Your task to perform on an android device: delete the emails in spam in the gmail app Image 0: 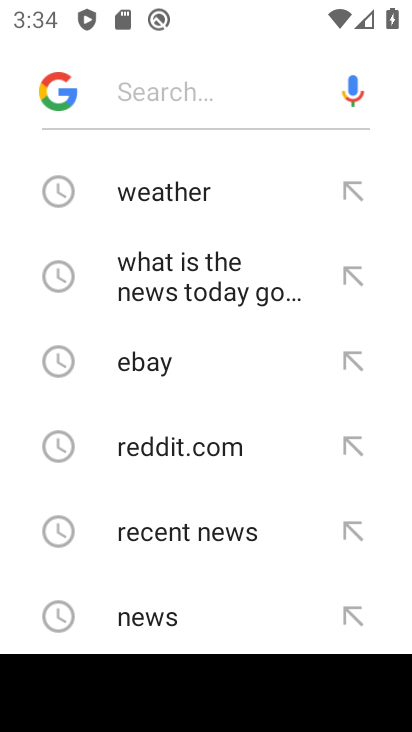
Step 0: press home button
Your task to perform on an android device: delete the emails in spam in the gmail app Image 1: 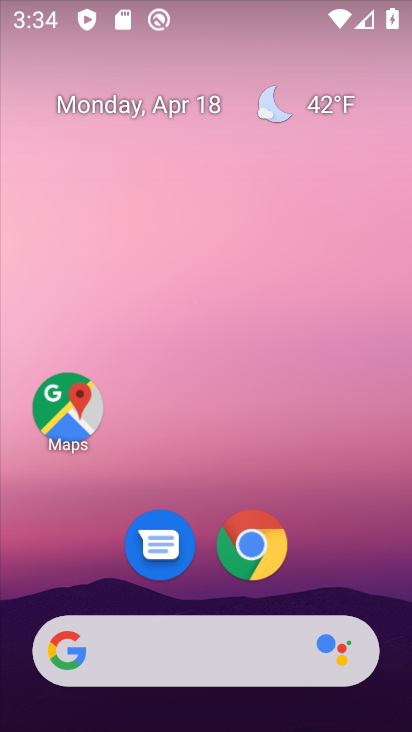
Step 1: drag from (321, 504) to (343, 81)
Your task to perform on an android device: delete the emails in spam in the gmail app Image 2: 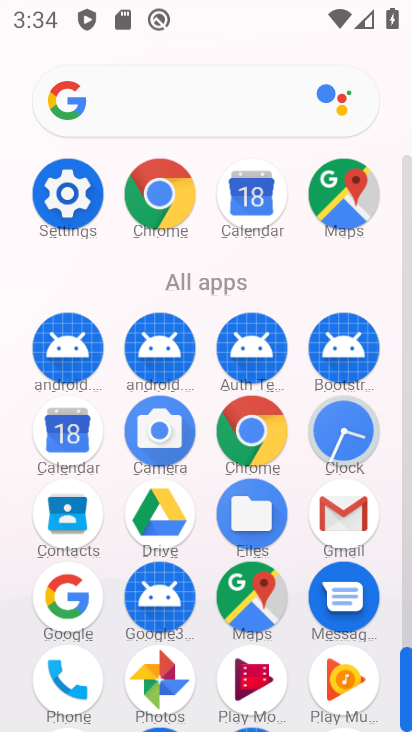
Step 2: click (345, 515)
Your task to perform on an android device: delete the emails in spam in the gmail app Image 3: 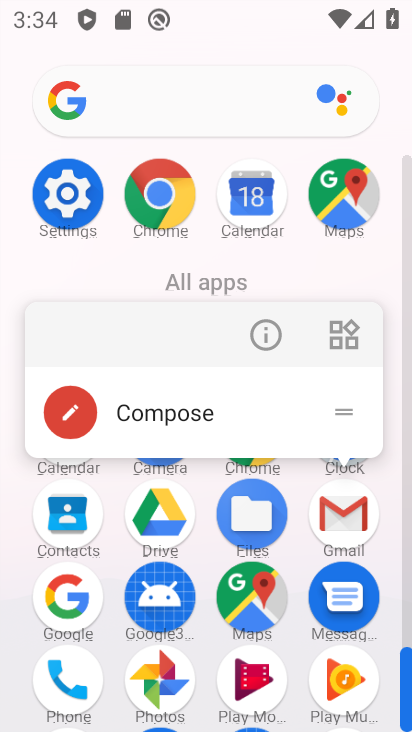
Step 3: click (351, 522)
Your task to perform on an android device: delete the emails in spam in the gmail app Image 4: 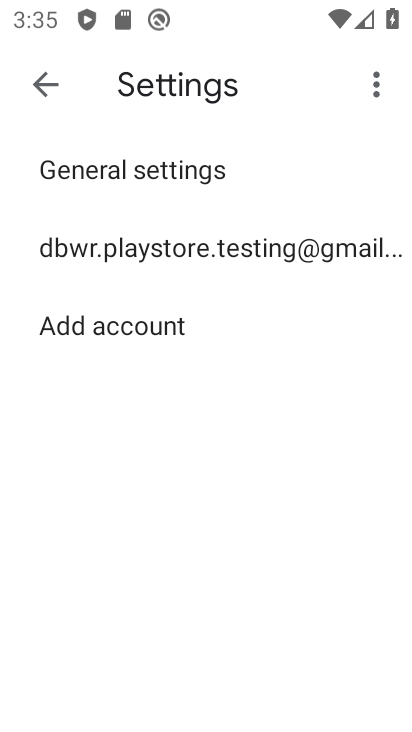
Step 4: click (48, 76)
Your task to perform on an android device: delete the emails in spam in the gmail app Image 5: 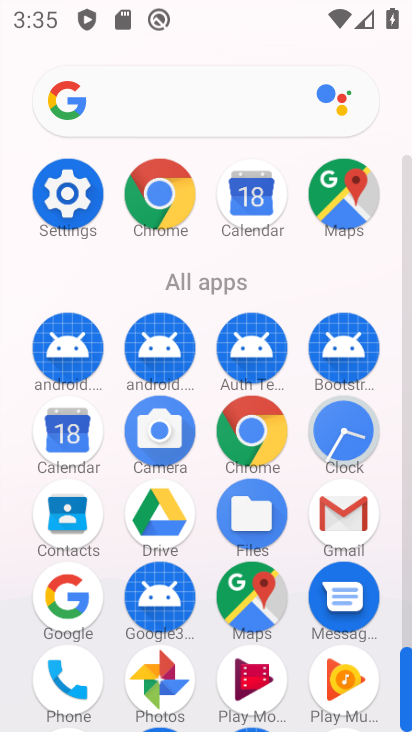
Step 5: click (329, 503)
Your task to perform on an android device: delete the emails in spam in the gmail app Image 6: 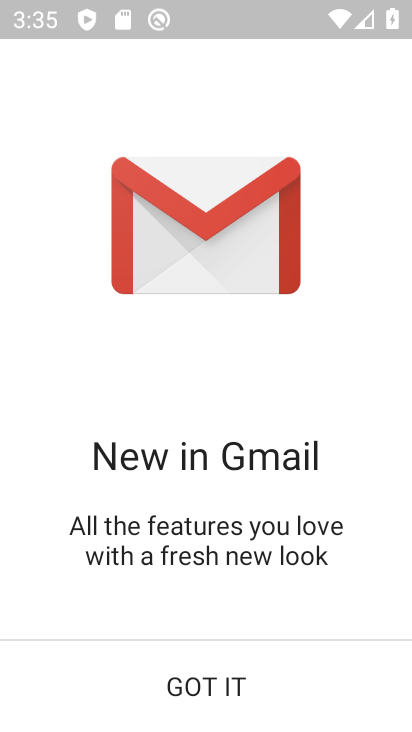
Step 6: click (238, 697)
Your task to perform on an android device: delete the emails in spam in the gmail app Image 7: 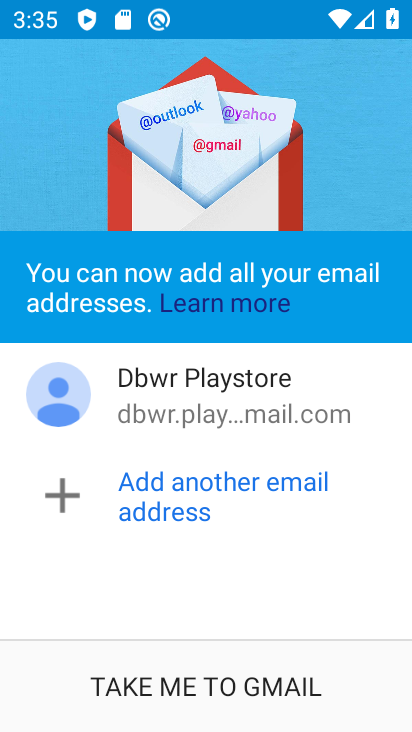
Step 7: click (241, 692)
Your task to perform on an android device: delete the emails in spam in the gmail app Image 8: 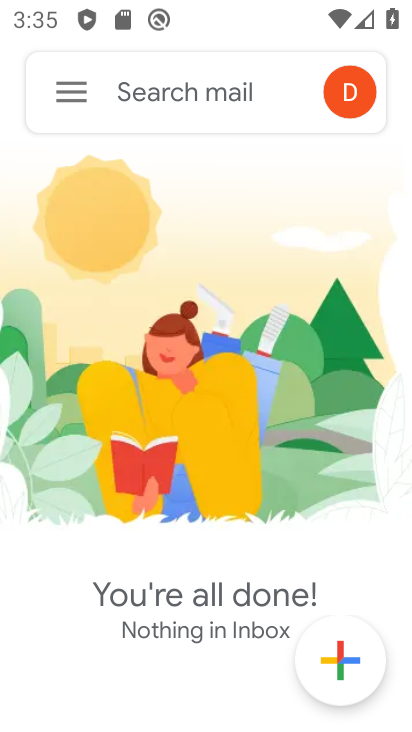
Step 8: task complete